Your task to perform on an android device: turn off location history Image 0: 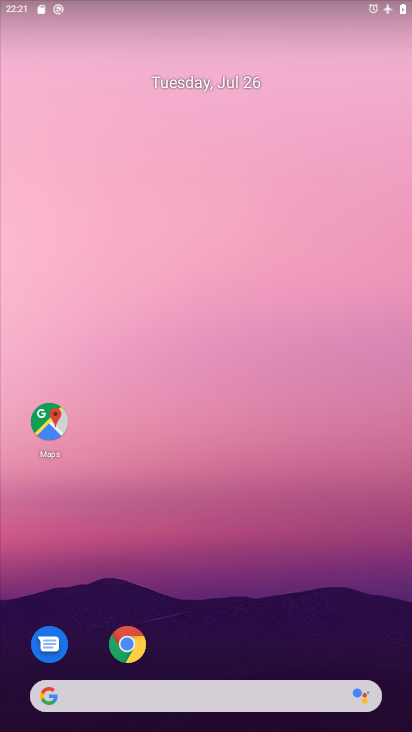
Step 0: drag from (207, 638) to (257, 158)
Your task to perform on an android device: turn off location history Image 1: 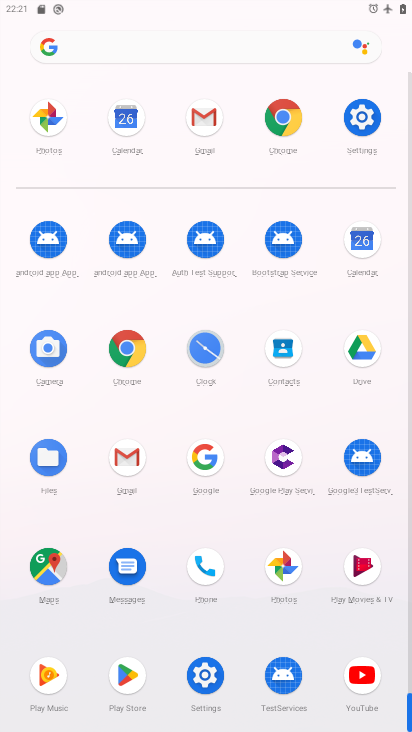
Step 1: click (354, 117)
Your task to perform on an android device: turn off location history Image 2: 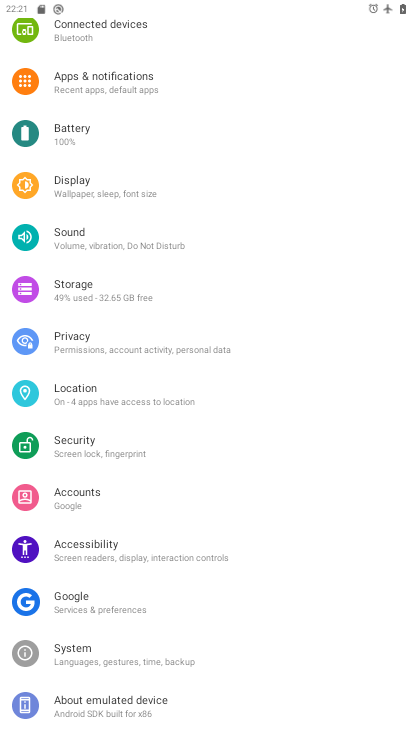
Step 2: click (100, 386)
Your task to perform on an android device: turn off location history Image 3: 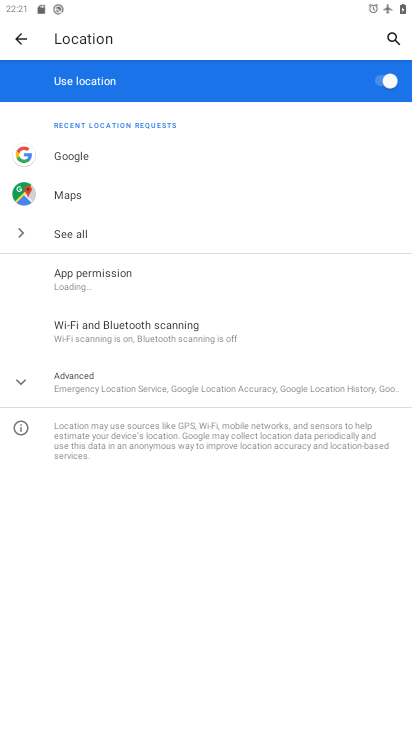
Step 3: click (201, 387)
Your task to perform on an android device: turn off location history Image 4: 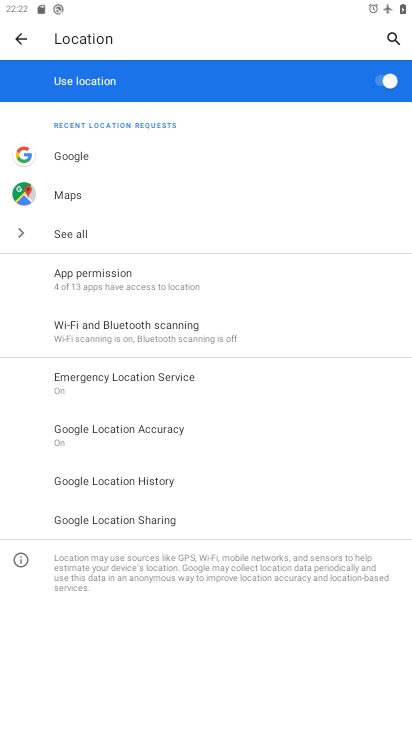
Step 4: click (142, 474)
Your task to perform on an android device: turn off location history Image 5: 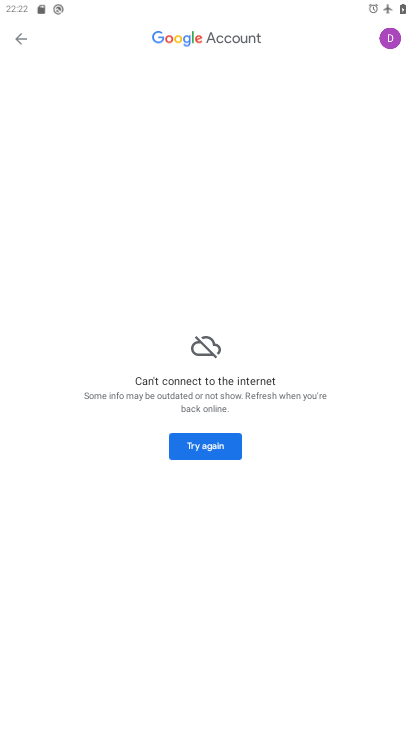
Step 5: task complete